Your task to perform on an android device: Go to sound settings Image 0: 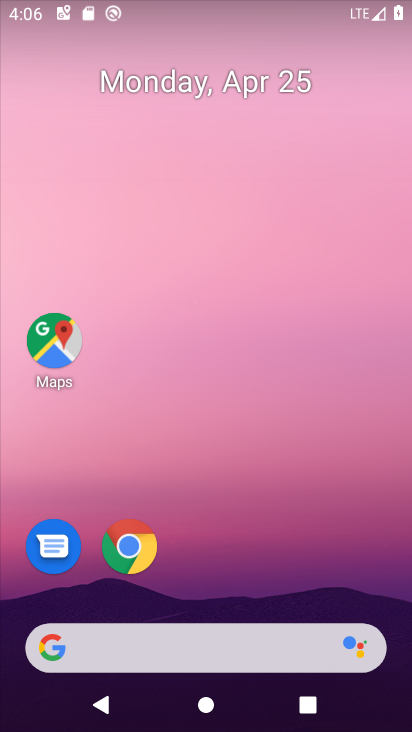
Step 0: drag from (243, 581) to (359, 1)
Your task to perform on an android device: Go to sound settings Image 1: 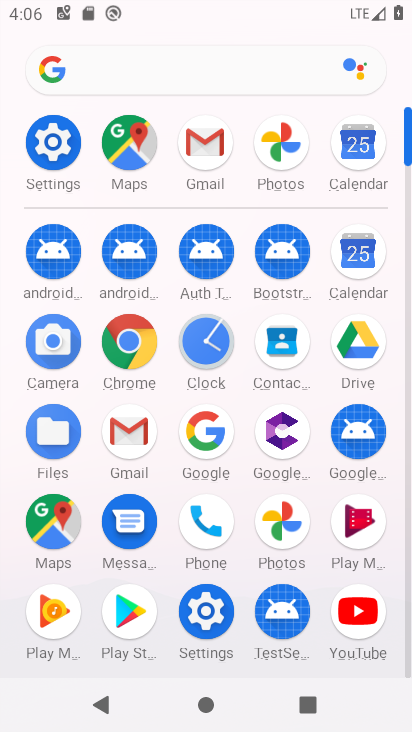
Step 1: click (51, 152)
Your task to perform on an android device: Go to sound settings Image 2: 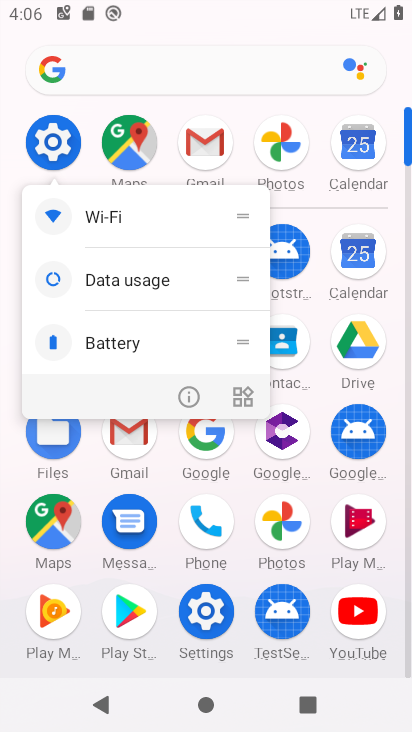
Step 2: click (56, 160)
Your task to perform on an android device: Go to sound settings Image 3: 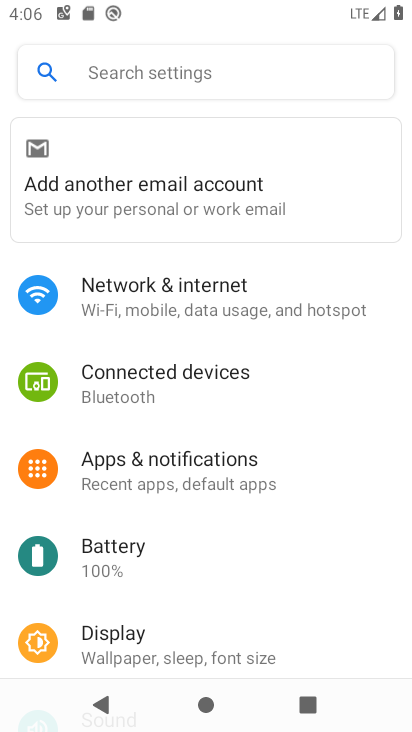
Step 3: drag from (139, 485) to (256, 71)
Your task to perform on an android device: Go to sound settings Image 4: 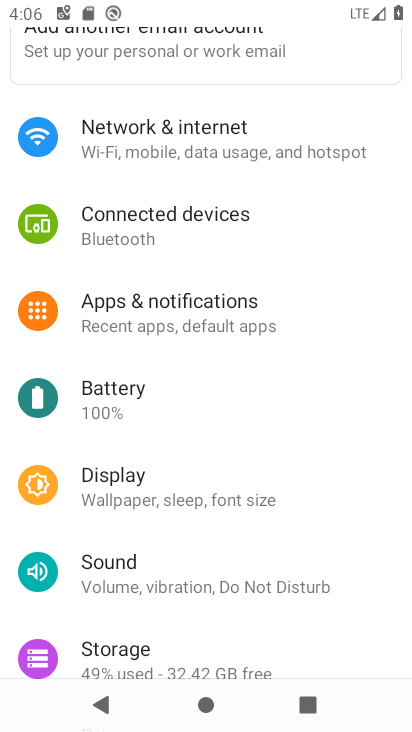
Step 4: click (124, 592)
Your task to perform on an android device: Go to sound settings Image 5: 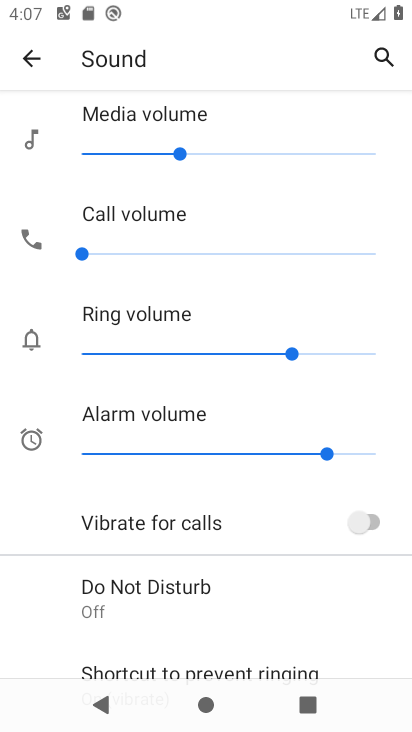
Step 5: task complete